Your task to perform on an android device: set an alarm Image 0: 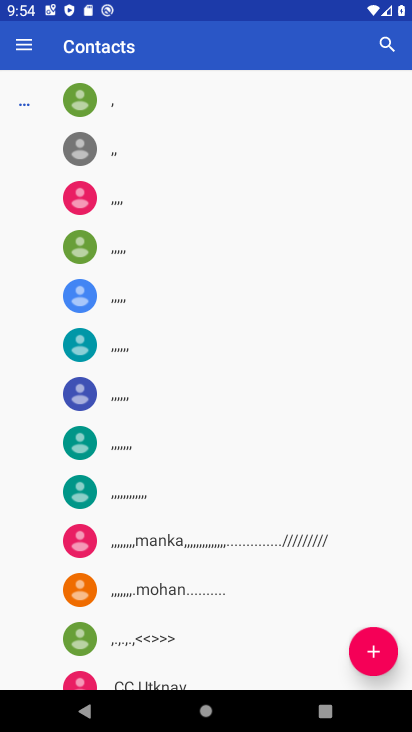
Step 0: press home button
Your task to perform on an android device: set an alarm Image 1: 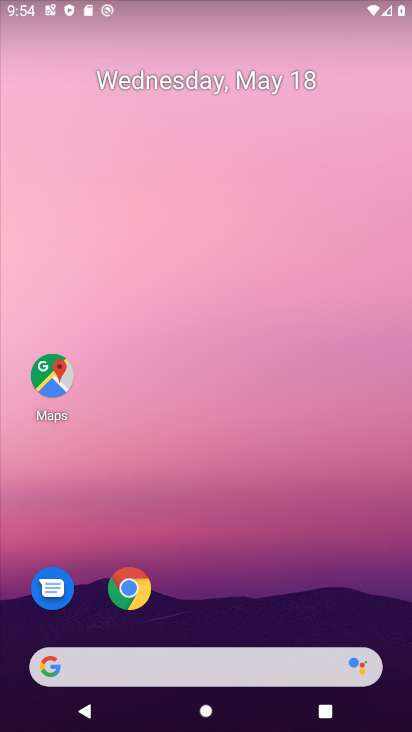
Step 1: drag from (230, 659) to (342, 201)
Your task to perform on an android device: set an alarm Image 2: 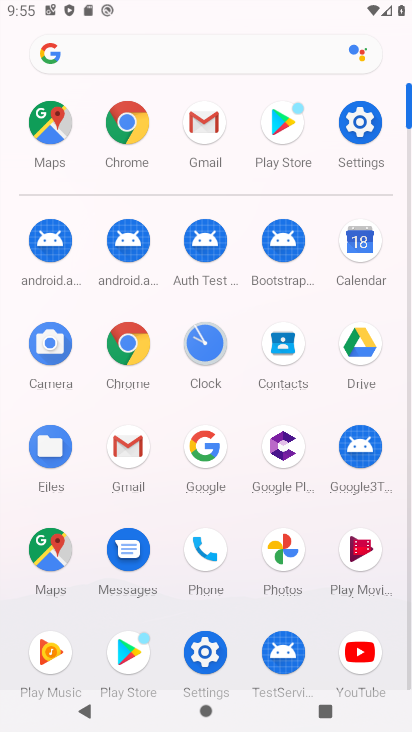
Step 2: click (216, 341)
Your task to perform on an android device: set an alarm Image 3: 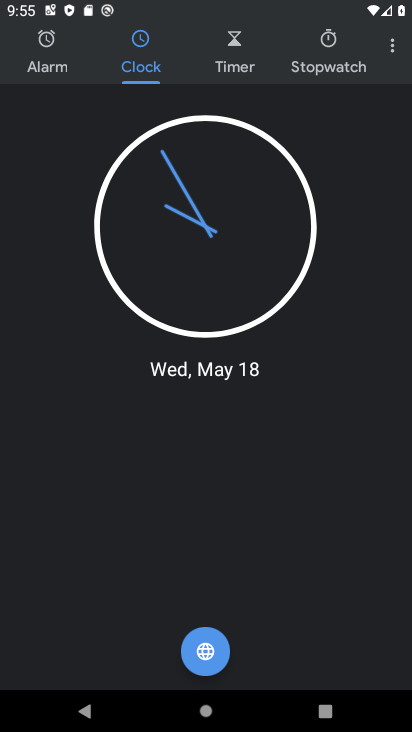
Step 3: click (69, 45)
Your task to perform on an android device: set an alarm Image 4: 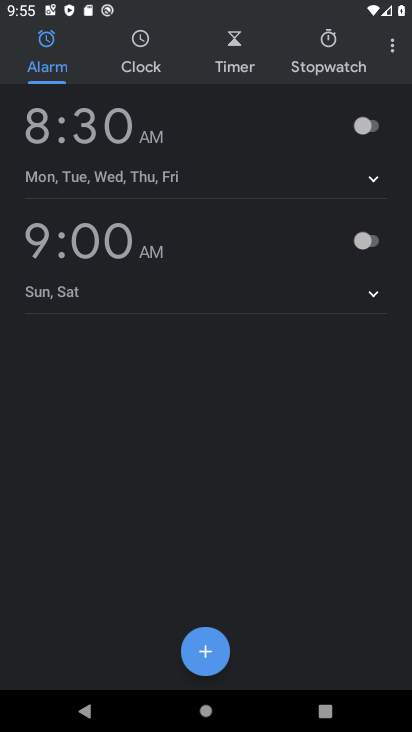
Step 4: click (120, 123)
Your task to perform on an android device: set an alarm Image 5: 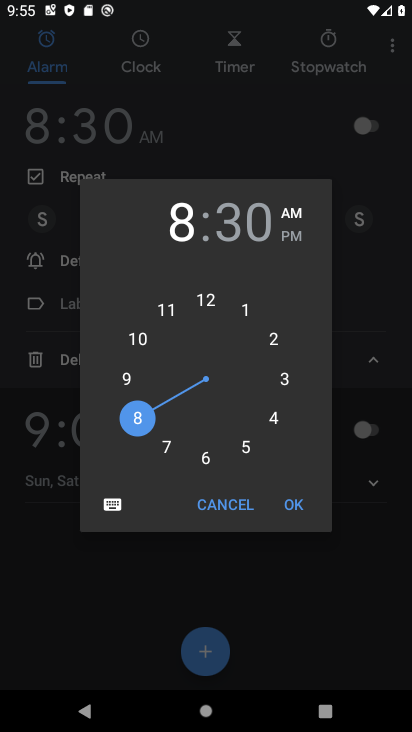
Step 5: click (293, 498)
Your task to perform on an android device: set an alarm Image 6: 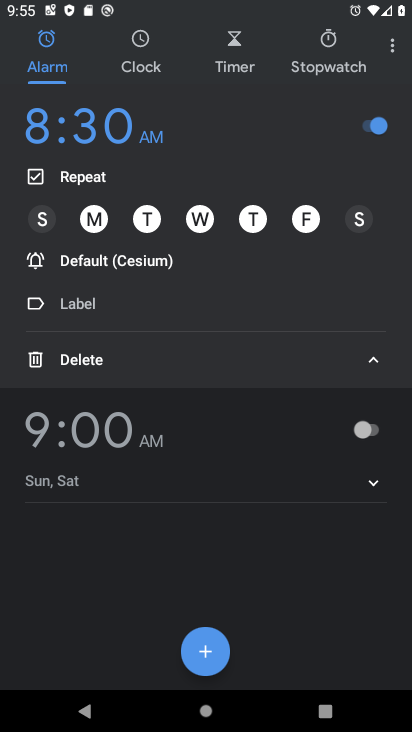
Step 6: task complete